Your task to perform on an android device: Go to Reddit.com Image 0: 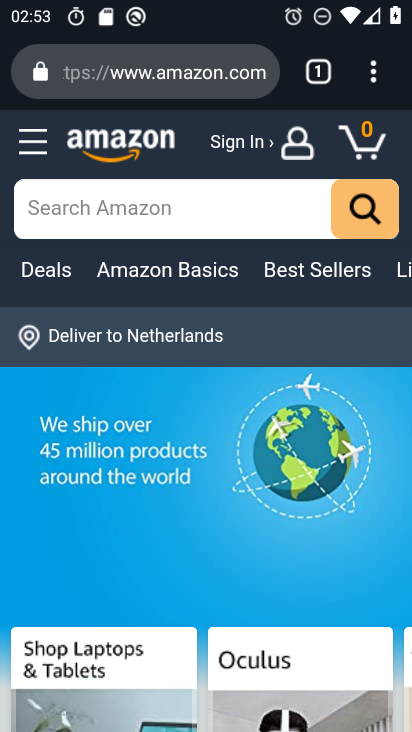
Step 0: drag from (331, 578) to (322, 343)
Your task to perform on an android device: Go to Reddit.com Image 1: 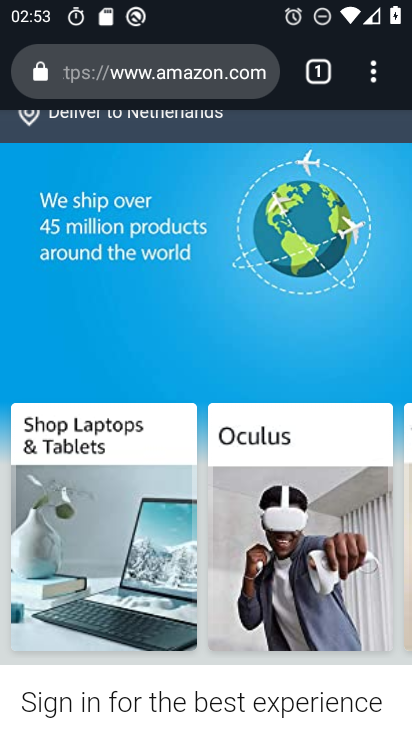
Step 1: click (180, 72)
Your task to perform on an android device: Go to Reddit.com Image 2: 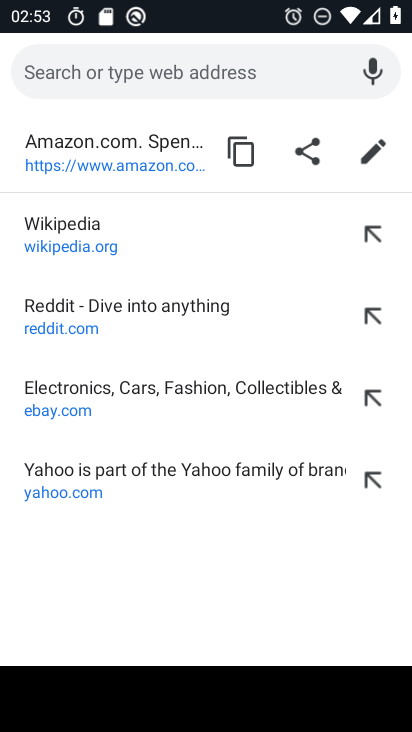
Step 2: click (58, 328)
Your task to perform on an android device: Go to Reddit.com Image 3: 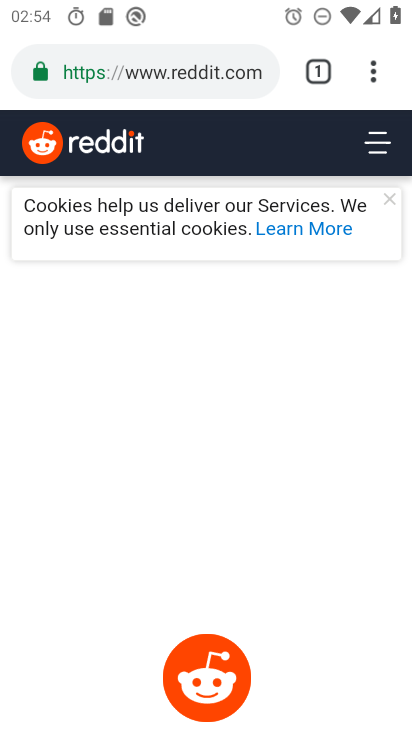
Step 3: task complete